Your task to perform on an android device: turn off improve location accuracy Image 0: 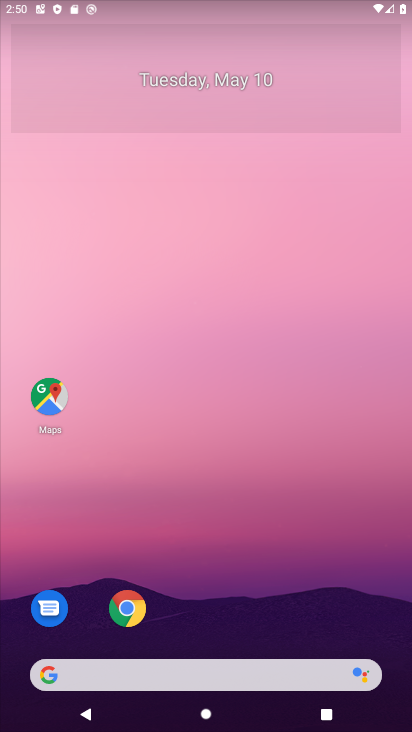
Step 0: drag from (190, 608) to (236, 9)
Your task to perform on an android device: turn off improve location accuracy Image 1: 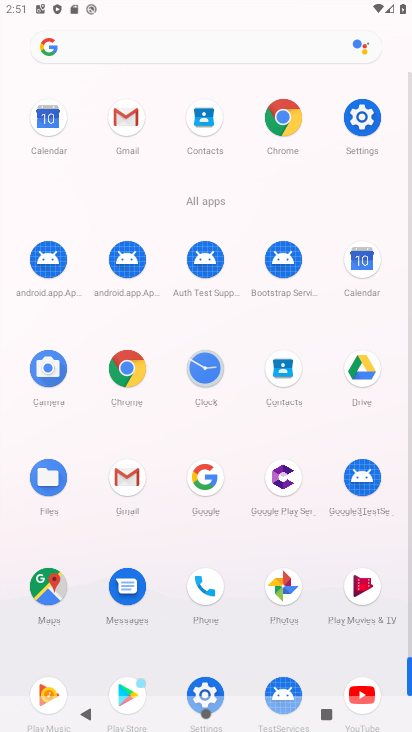
Step 1: click (360, 134)
Your task to perform on an android device: turn off improve location accuracy Image 2: 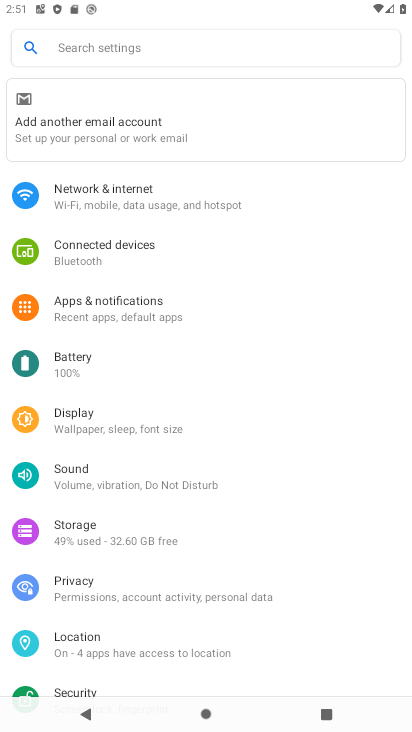
Step 2: click (124, 641)
Your task to perform on an android device: turn off improve location accuracy Image 3: 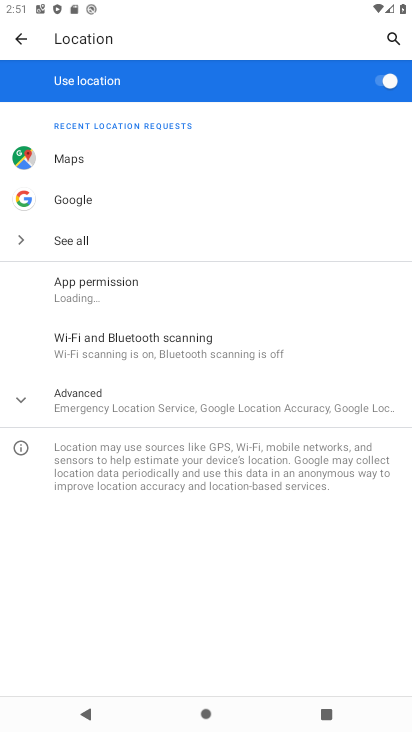
Step 3: click (134, 411)
Your task to perform on an android device: turn off improve location accuracy Image 4: 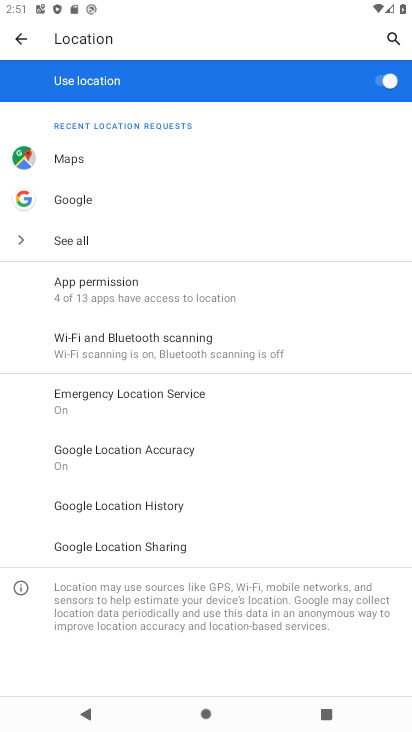
Step 4: click (146, 450)
Your task to perform on an android device: turn off improve location accuracy Image 5: 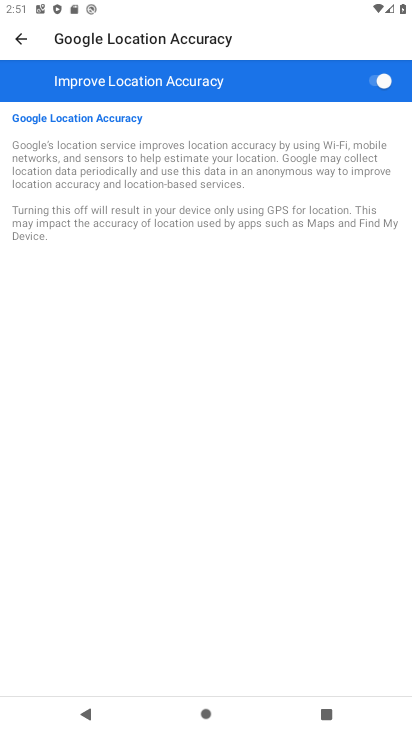
Step 5: click (360, 90)
Your task to perform on an android device: turn off improve location accuracy Image 6: 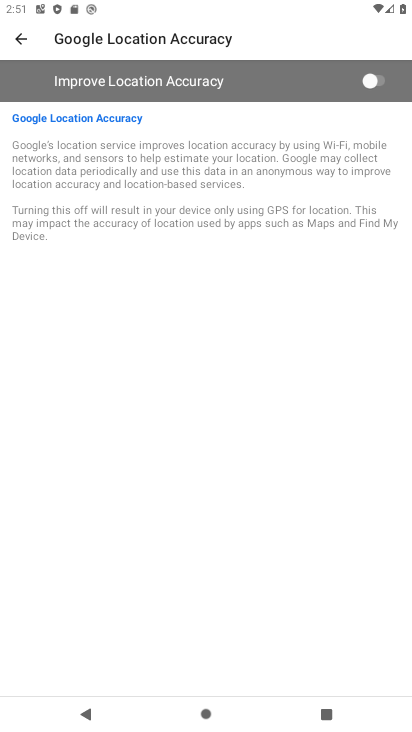
Step 6: task complete